Your task to perform on an android device: Open maps Image 0: 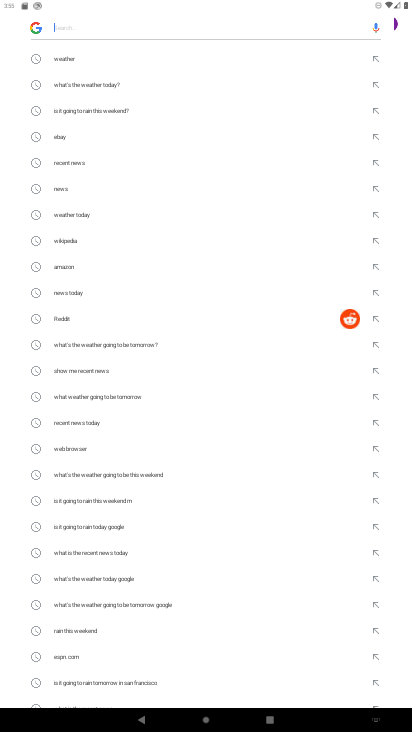
Step 0: press home button
Your task to perform on an android device: Open maps Image 1: 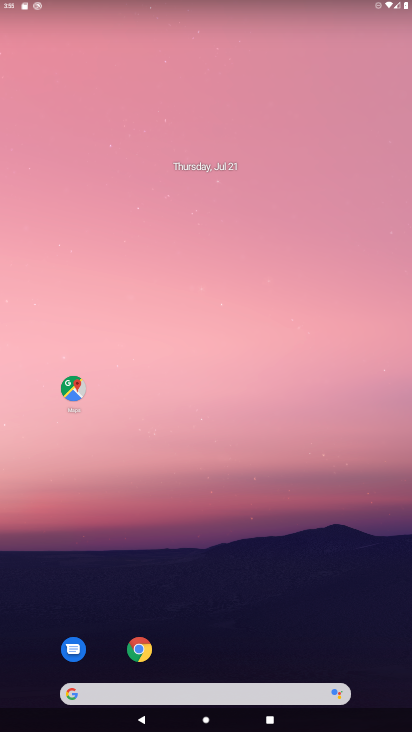
Step 1: click (78, 393)
Your task to perform on an android device: Open maps Image 2: 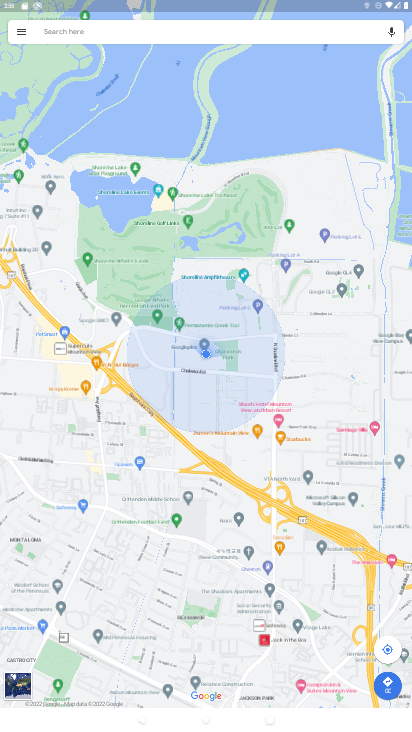
Step 2: task complete